Your task to perform on an android device: turn on location history Image 0: 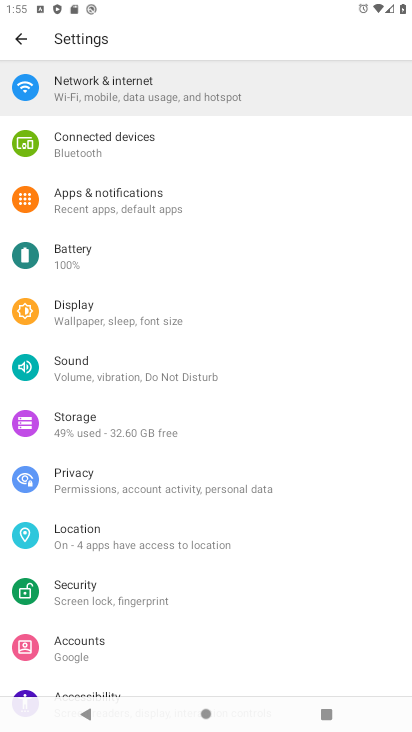
Step 0: click (146, 530)
Your task to perform on an android device: turn on location history Image 1: 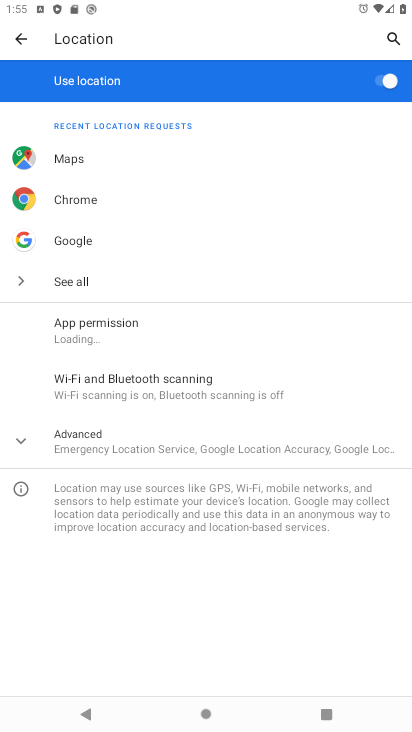
Step 1: click (384, 79)
Your task to perform on an android device: turn on location history Image 2: 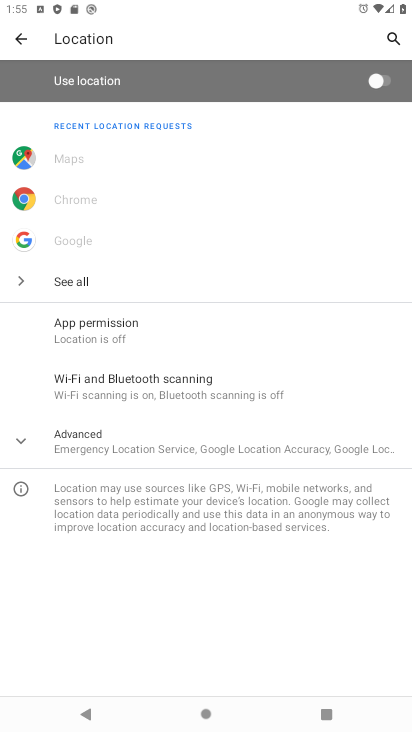
Step 2: click (384, 79)
Your task to perform on an android device: turn on location history Image 3: 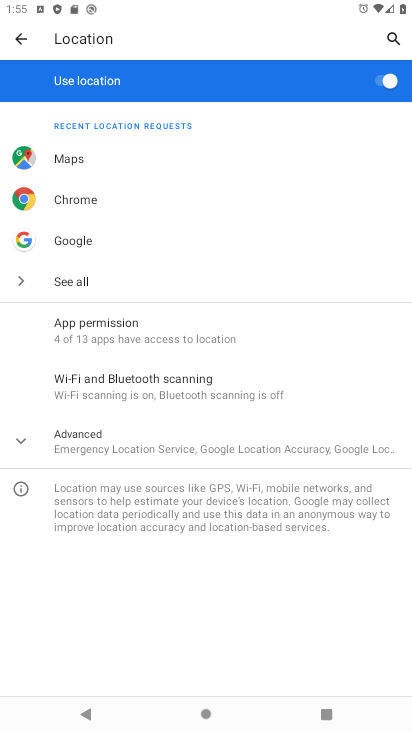
Step 3: task complete